Your task to perform on an android device: Check the weather Image 0: 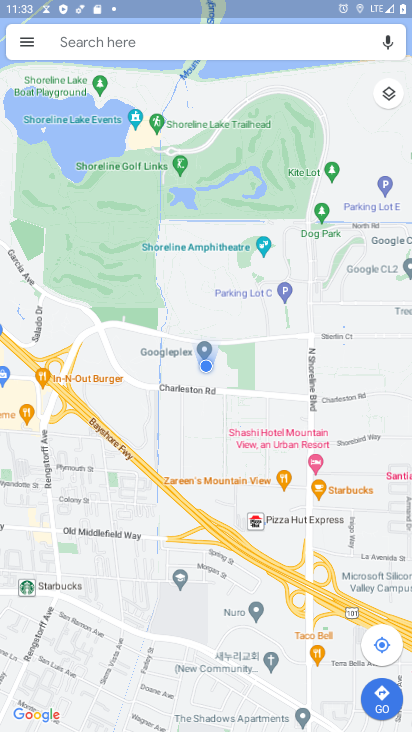
Step 0: press back button
Your task to perform on an android device: Check the weather Image 1: 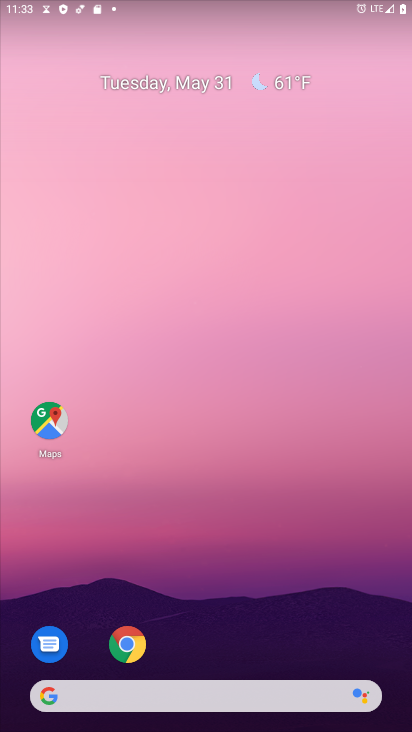
Step 1: click (254, 76)
Your task to perform on an android device: Check the weather Image 2: 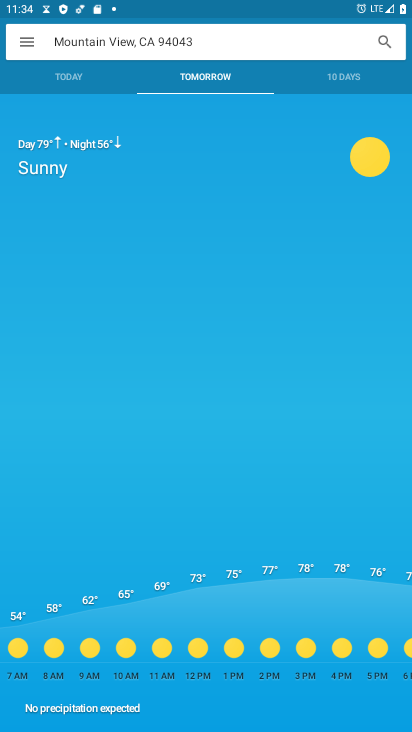
Step 2: click (61, 89)
Your task to perform on an android device: Check the weather Image 3: 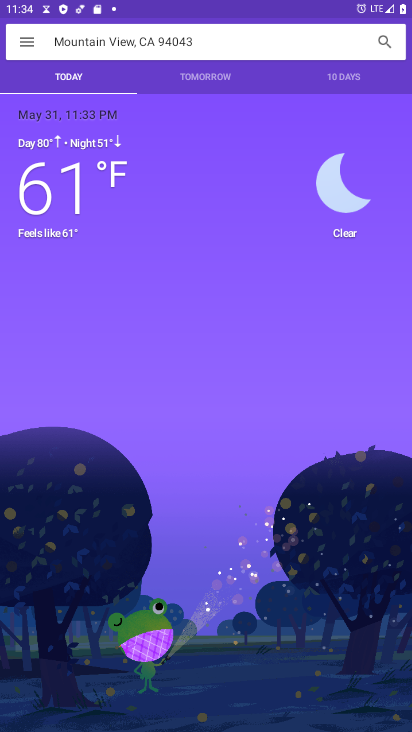
Step 3: task complete